Your task to perform on an android device: make emails show in primary in the gmail app Image 0: 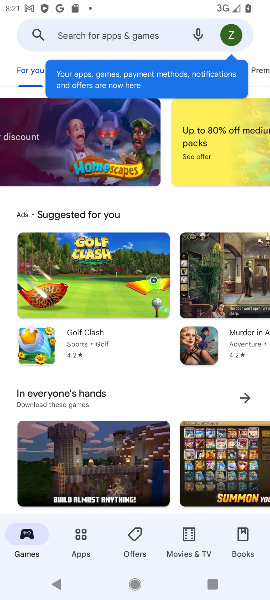
Step 0: press home button
Your task to perform on an android device: make emails show in primary in the gmail app Image 1: 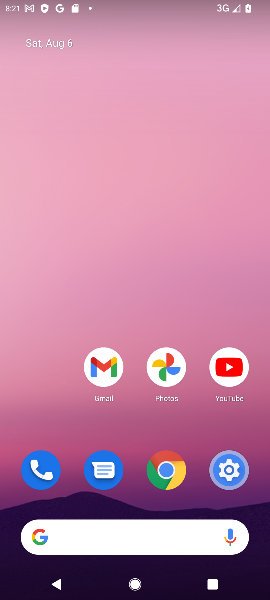
Step 1: drag from (149, 459) to (149, 18)
Your task to perform on an android device: make emails show in primary in the gmail app Image 2: 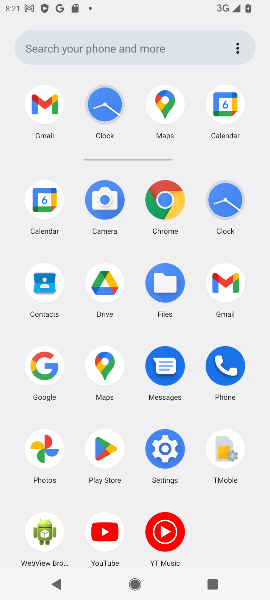
Step 2: click (226, 301)
Your task to perform on an android device: make emails show in primary in the gmail app Image 3: 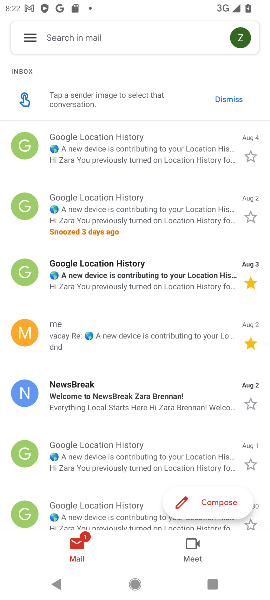
Step 3: click (29, 39)
Your task to perform on an android device: make emails show in primary in the gmail app Image 4: 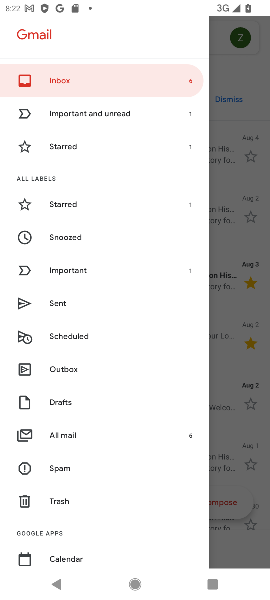
Step 4: drag from (74, 511) to (57, 192)
Your task to perform on an android device: make emails show in primary in the gmail app Image 5: 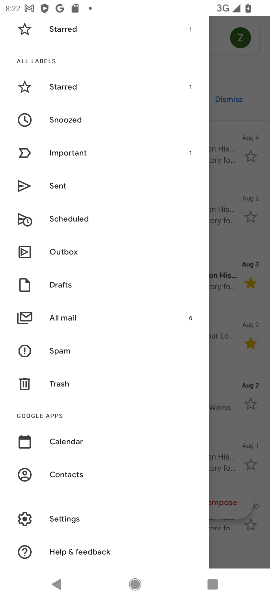
Step 5: click (73, 521)
Your task to perform on an android device: make emails show in primary in the gmail app Image 6: 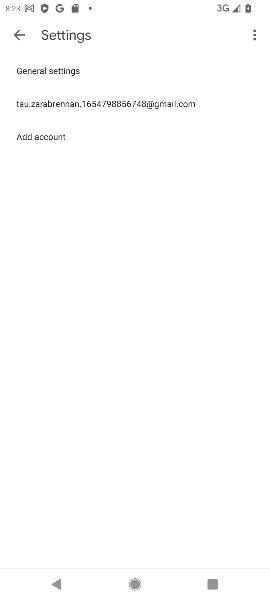
Step 6: click (78, 68)
Your task to perform on an android device: make emails show in primary in the gmail app Image 7: 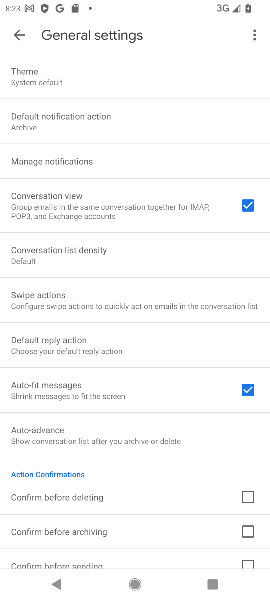
Step 7: task complete